Your task to perform on an android device: turn notification dots off Image 0: 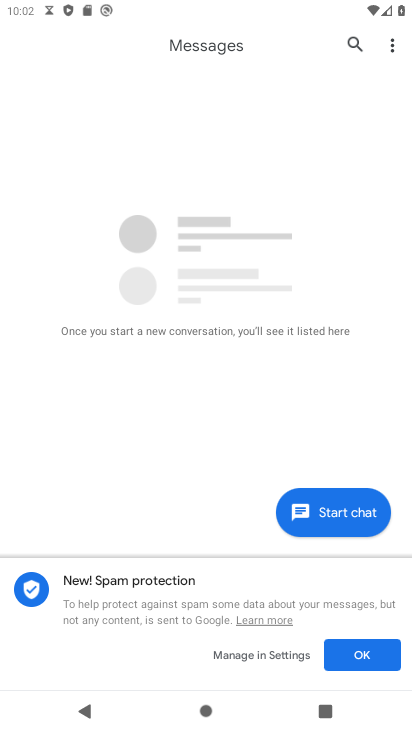
Step 0: press home button
Your task to perform on an android device: turn notification dots off Image 1: 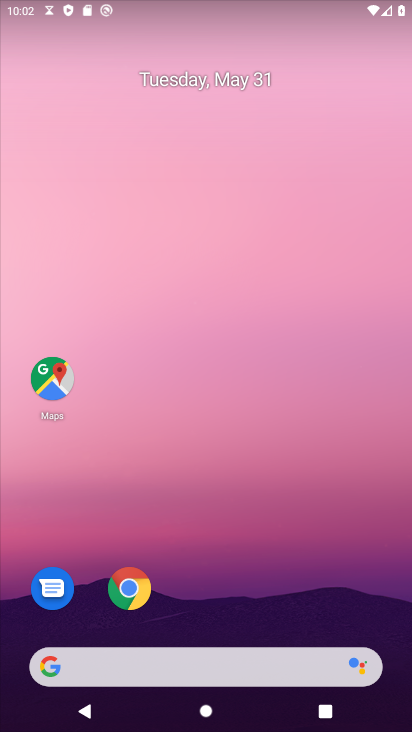
Step 1: drag from (225, 600) to (175, 53)
Your task to perform on an android device: turn notification dots off Image 2: 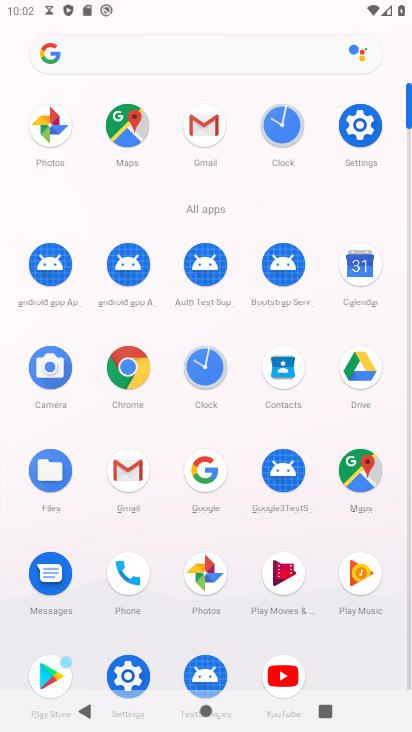
Step 2: click (362, 125)
Your task to perform on an android device: turn notification dots off Image 3: 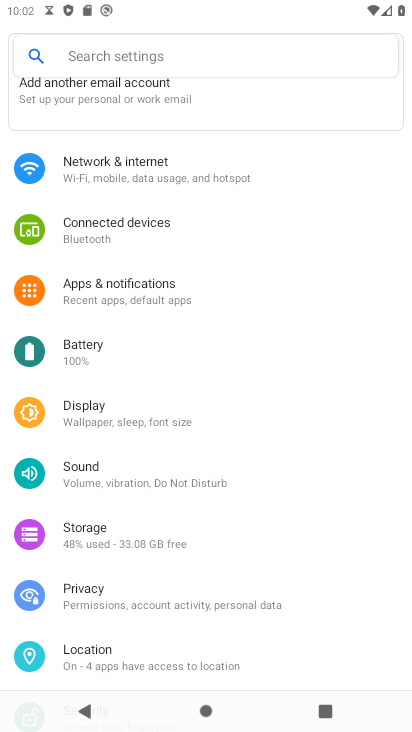
Step 3: click (132, 279)
Your task to perform on an android device: turn notification dots off Image 4: 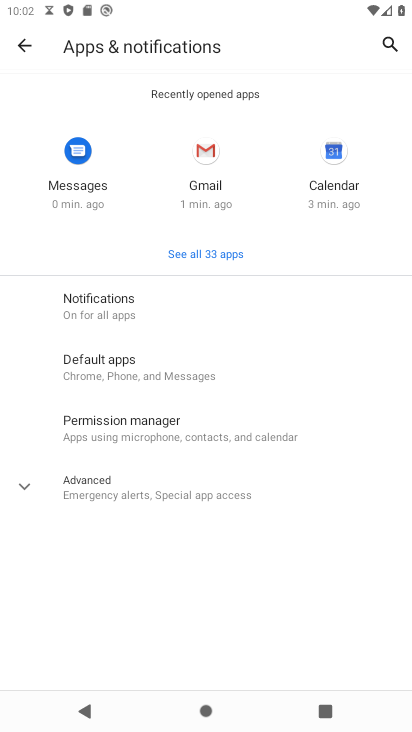
Step 4: click (138, 303)
Your task to perform on an android device: turn notification dots off Image 5: 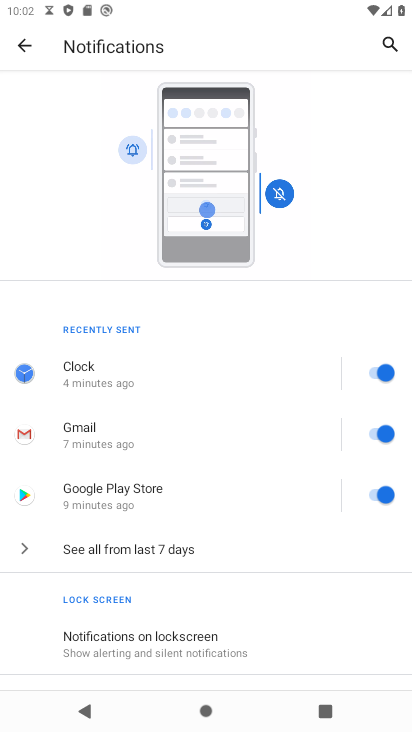
Step 5: drag from (188, 588) to (159, 421)
Your task to perform on an android device: turn notification dots off Image 6: 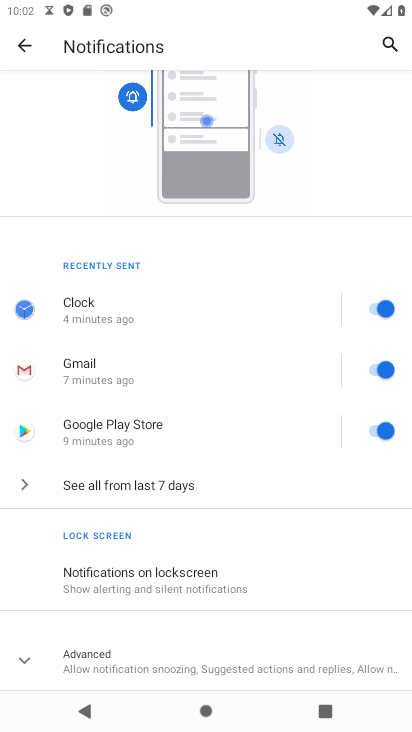
Step 6: click (161, 662)
Your task to perform on an android device: turn notification dots off Image 7: 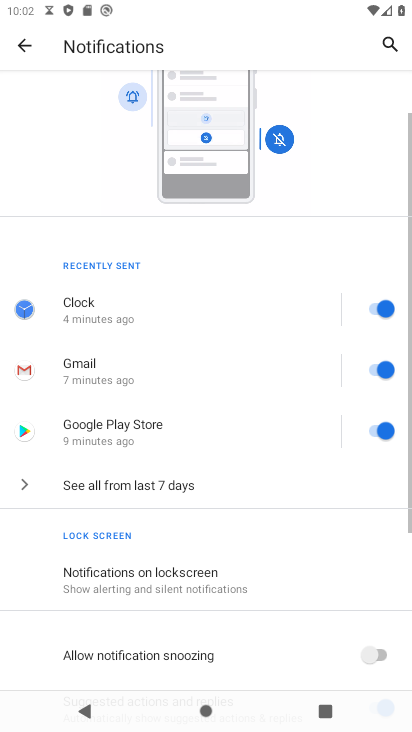
Step 7: drag from (158, 630) to (92, 355)
Your task to perform on an android device: turn notification dots off Image 8: 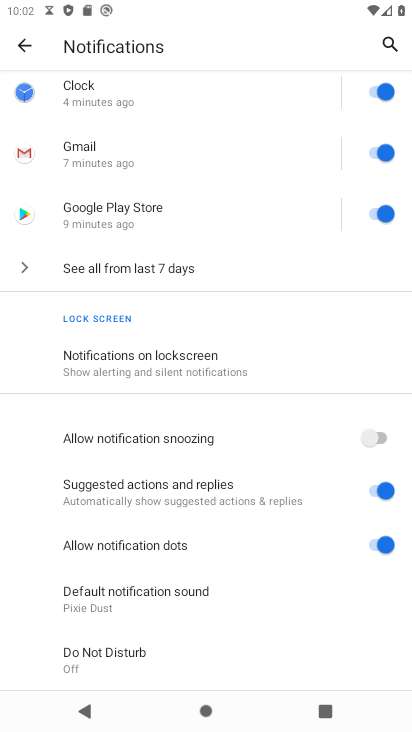
Step 8: click (372, 541)
Your task to perform on an android device: turn notification dots off Image 9: 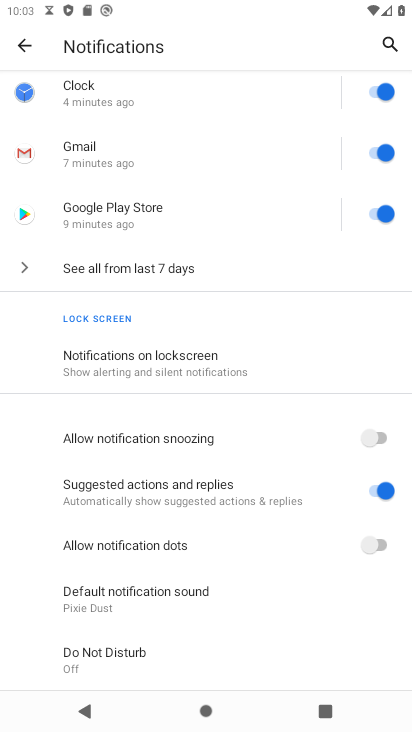
Step 9: task complete